Your task to perform on an android device: Open Google Chrome and click the shortcut for Amazon.com Image 0: 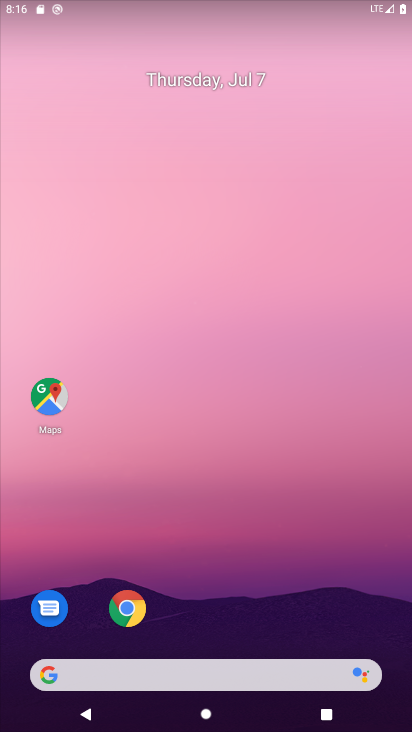
Step 0: drag from (373, 607) to (363, 21)
Your task to perform on an android device: Open Google Chrome and click the shortcut for Amazon.com Image 1: 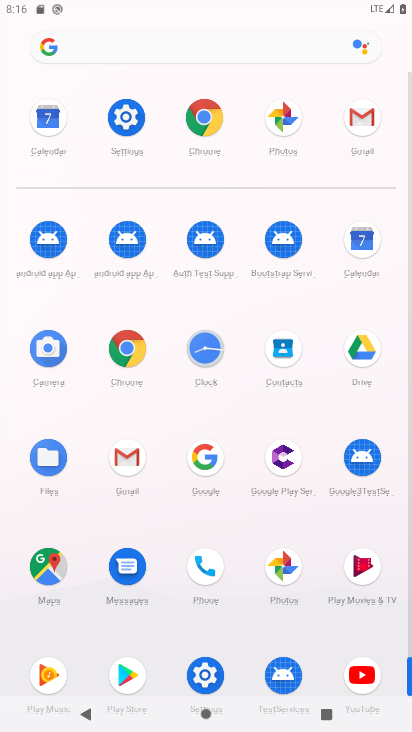
Step 1: click (139, 345)
Your task to perform on an android device: Open Google Chrome and click the shortcut for Amazon.com Image 2: 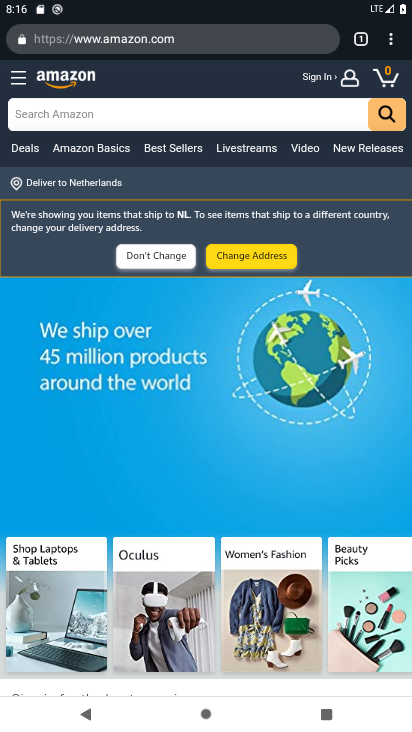
Step 2: task complete